Your task to perform on an android device: check google app version Image 0: 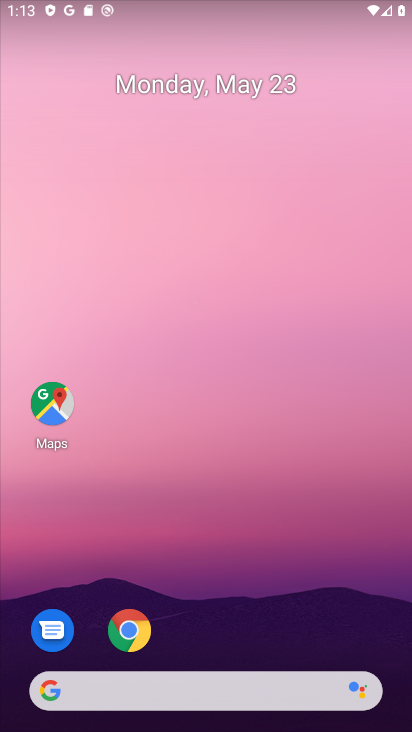
Step 0: click (52, 686)
Your task to perform on an android device: check google app version Image 1: 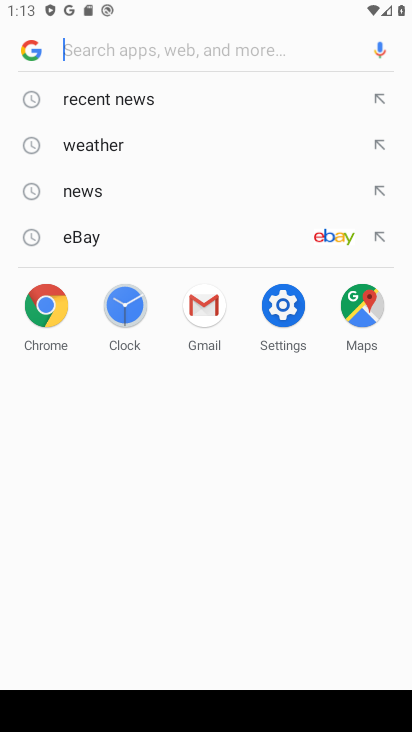
Step 1: click (27, 45)
Your task to perform on an android device: check google app version Image 2: 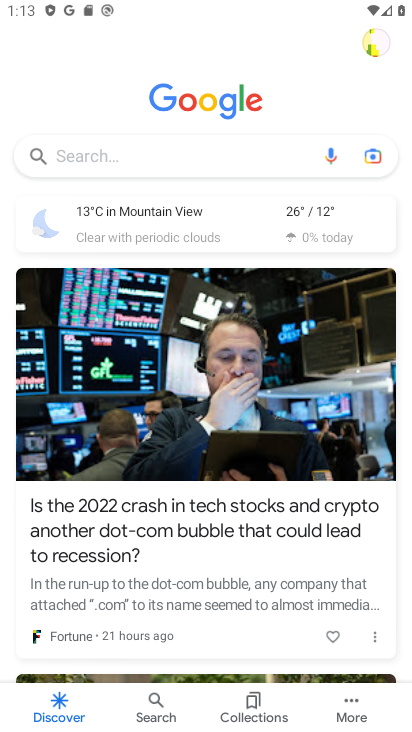
Step 2: click (350, 701)
Your task to perform on an android device: check google app version Image 3: 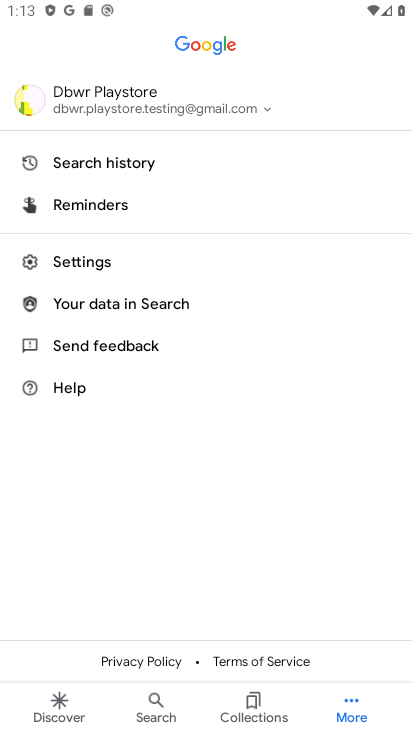
Step 3: click (72, 263)
Your task to perform on an android device: check google app version Image 4: 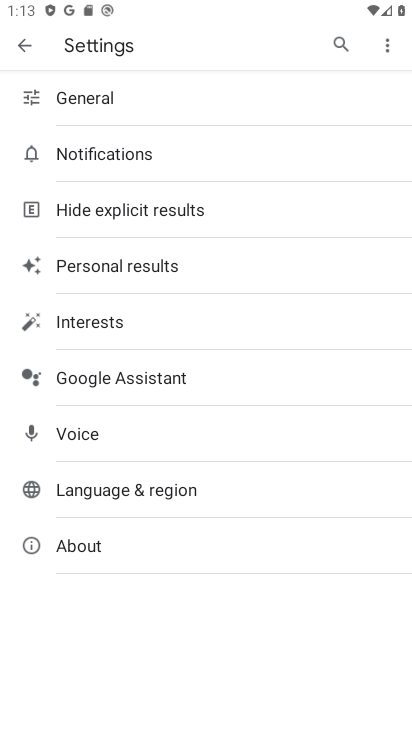
Step 4: click (75, 552)
Your task to perform on an android device: check google app version Image 5: 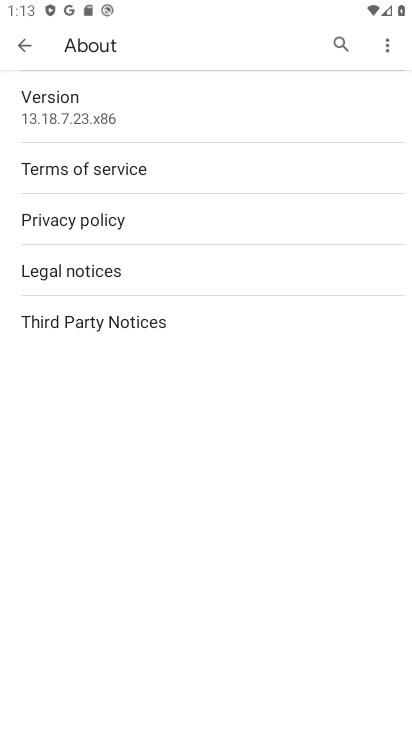
Step 5: task complete